Your task to perform on an android device: toggle translation in the chrome app Image 0: 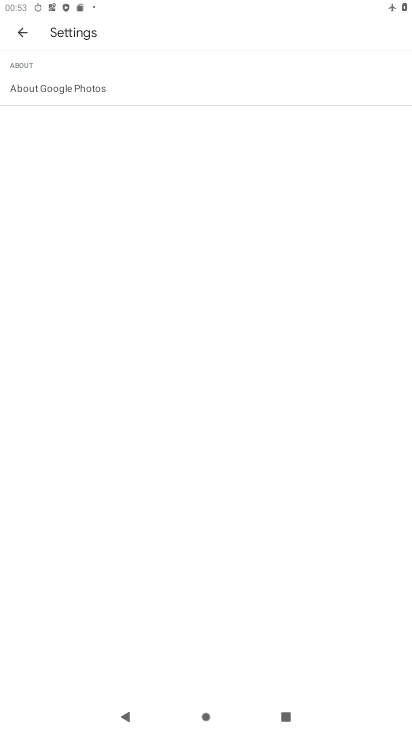
Step 0: press home button
Your task to perform on an android device: toggle translation in the chrome app Image 1: 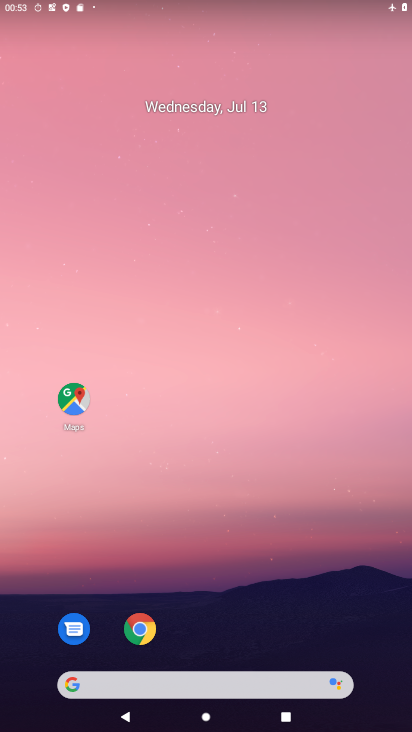
Step 1: click (140, 620)
Your task to perform on an android device: toggle translation in the chrome app Image 2: 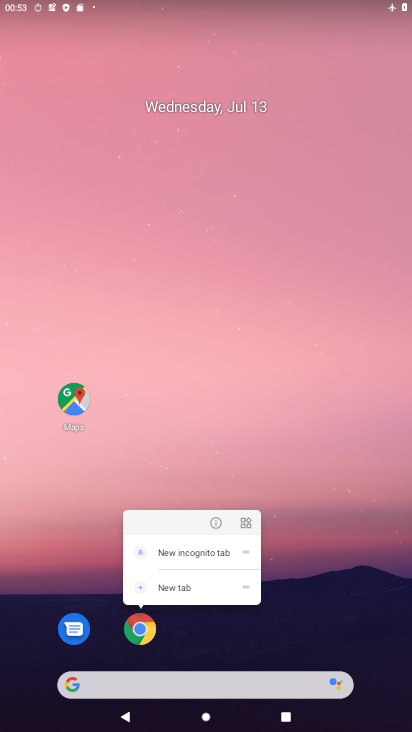
Step 2: click (135, 639)
Your task to perform on an android device: toggle translation in the chrome app Image 3: 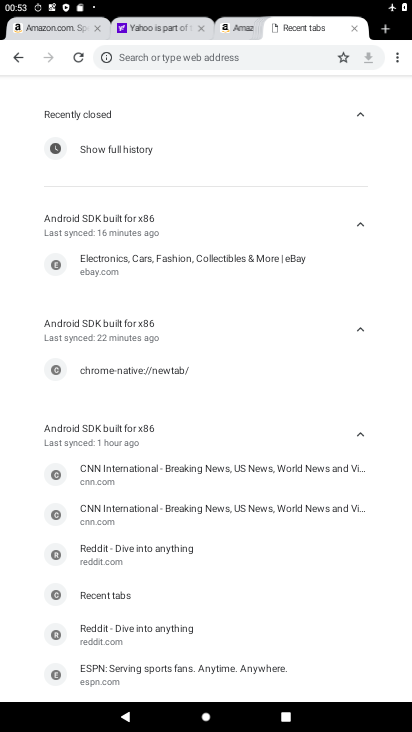
Step 3: click (395, 53)
Your task to perform on an android device: toggle translation in the chrome app Image 4: 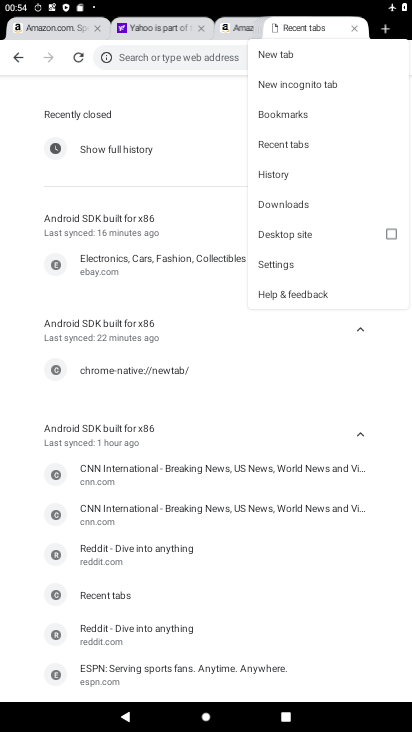
Step 4: click (296, 262)
Your task to perform on an android device: toggle translation in the chrome app Image 5: 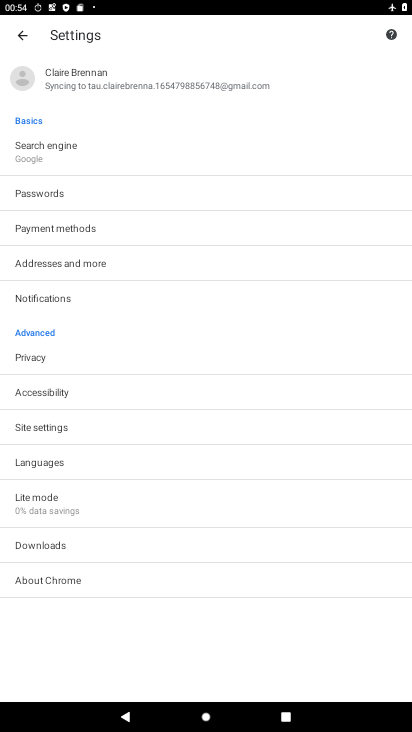
Step 5: click (67, 464)
Your task to perform on an android device: toggle translation in the chrome app Image 6: 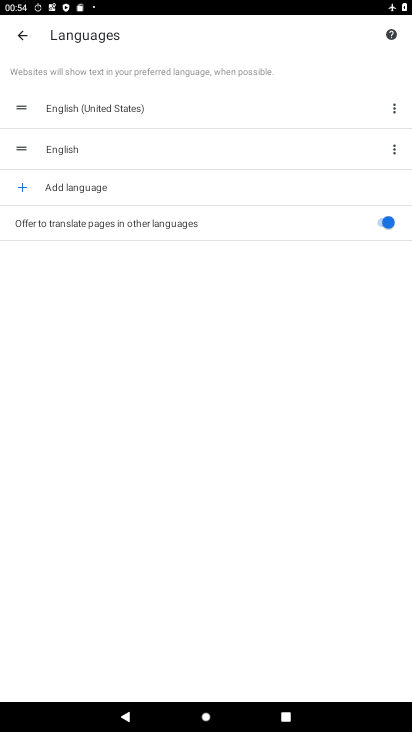
Step 6: click (379, 220)
Your task to perform on an android device: toggle translation in the chrome app Image 7: 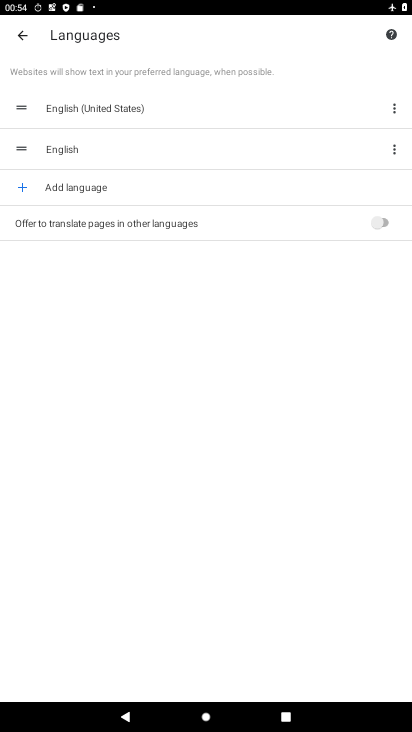
Step 7: task complete